Your task to perform on an android device: Go to Google Image 0: 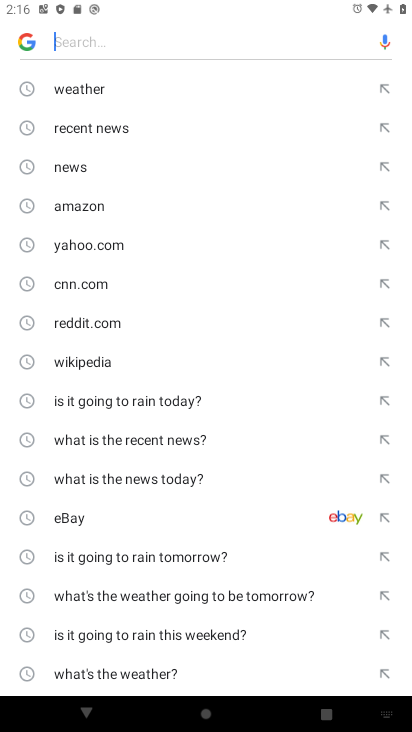
Step 0: press home button
Your task to perform on an android device: Go to Google Image 1: 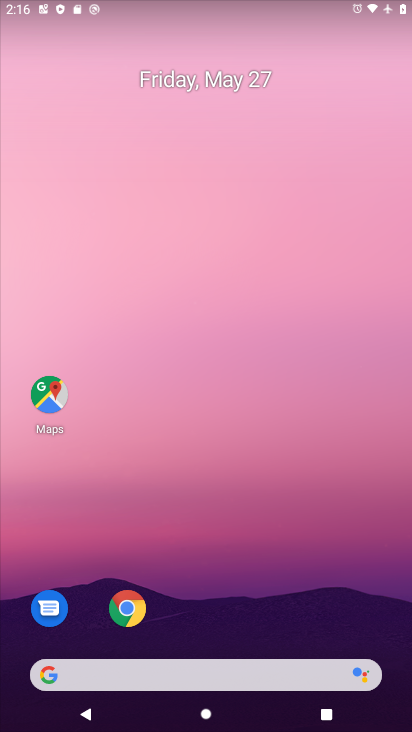
Step 1: drag from (108, 671) to (276, 194)
Your task to perform on an android device: Go to Google Image 2: 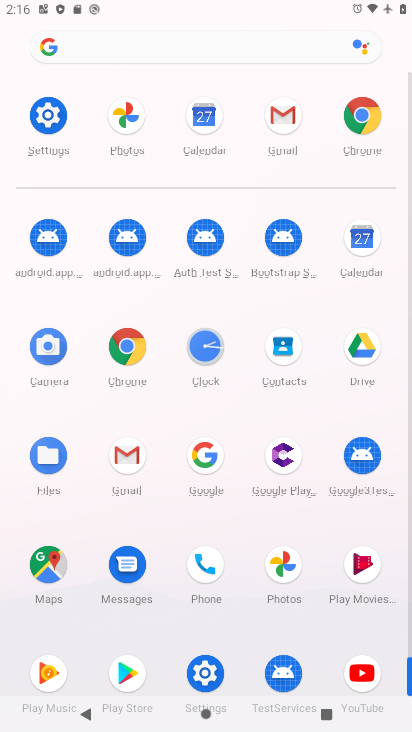
Step 2: click (208, 459)
Your task to perform on an android device: Go to Google Image 3: 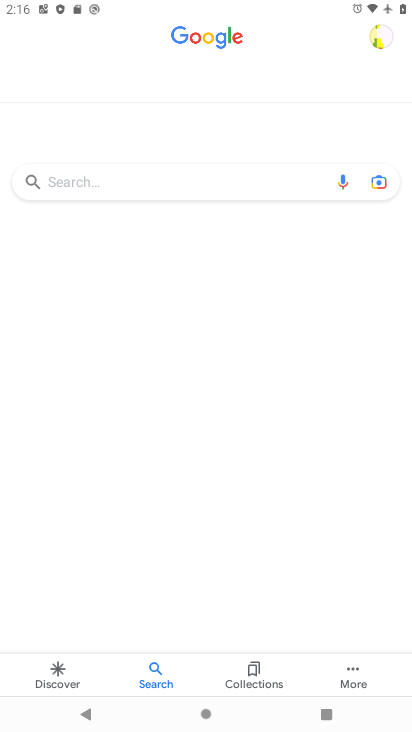
Step 3: click (65, 671)
Your task to perform on an android device: Go to Google Image 4: 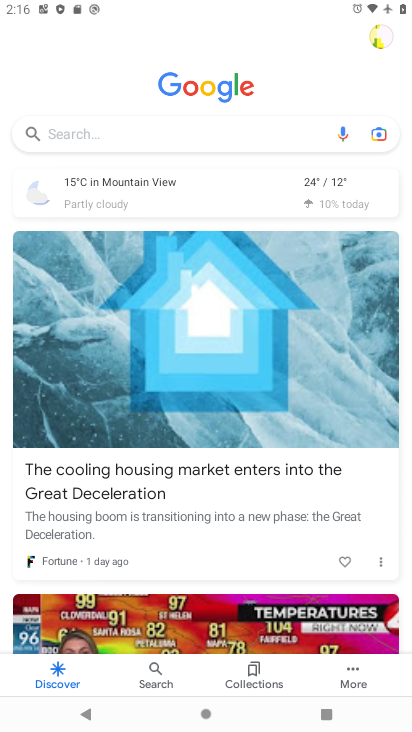
Step 4: task complete